Your task to perform on an android device: toggle wifi Image 0: 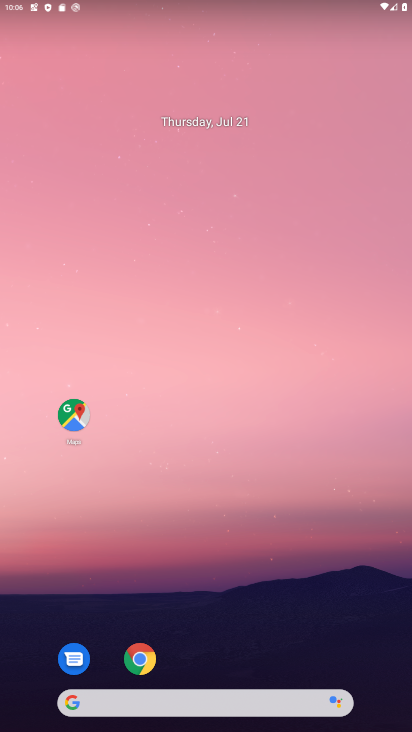
Step 0: drag from (298, 616) to (245, 27)
Your task to perform on an android device: toggle wifi Image 1: 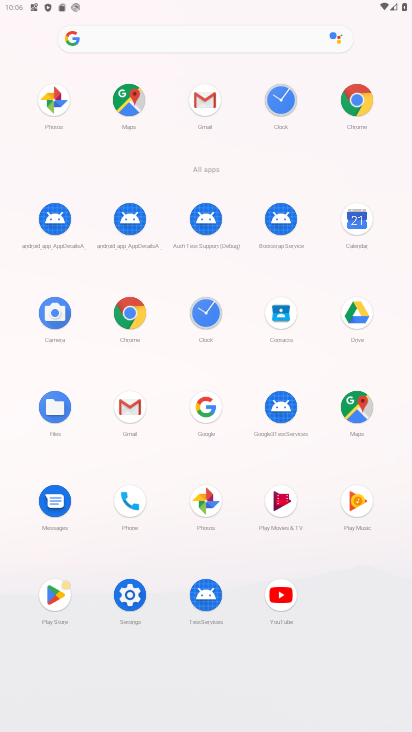
Step 1: click (125, 607)
Your task to perform on an android device: toggle wifi Image 2: 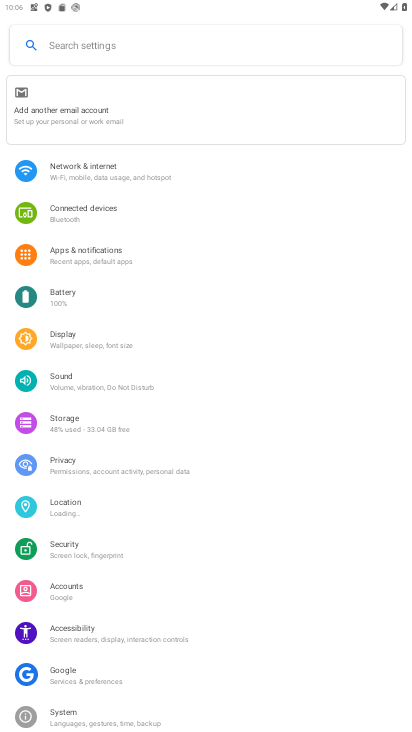
Step 2: click (88, 166)
Your task to perform on an android device: toggle wifi Image 3: 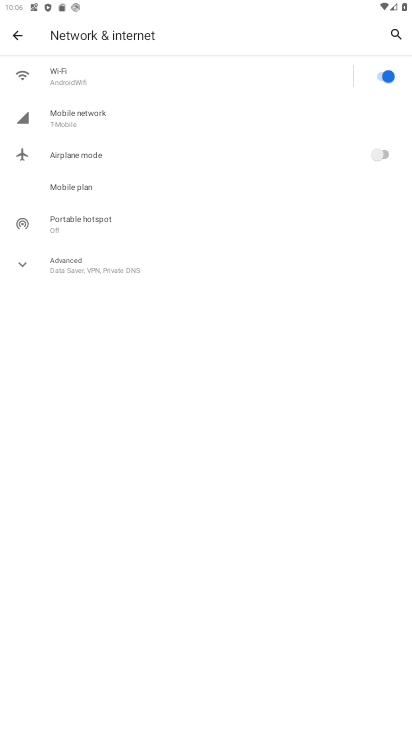
Step 3: click (398, 77)
Your task to perform on an android device: toggle wifi Image 4: 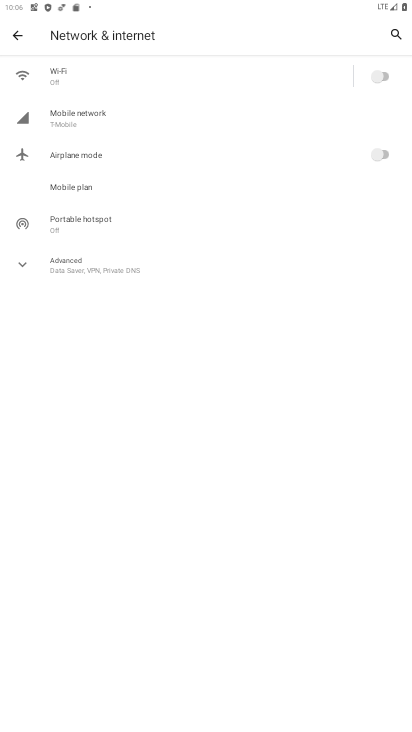
Step 4: task complete